Your task to perform on an android device: Open my contact list Image 0: 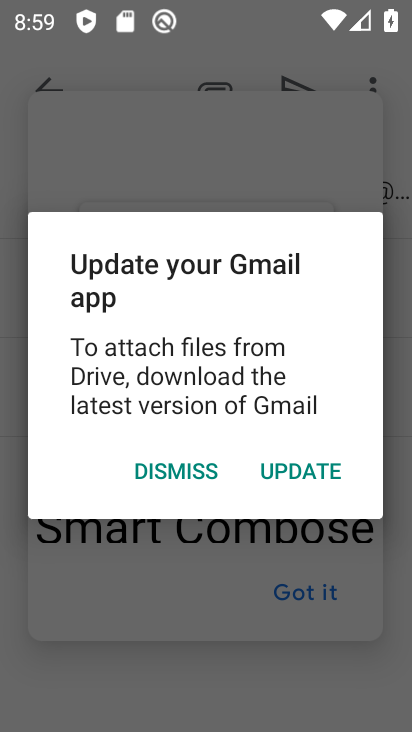
Step 0: press back button
Your task to perform on an android device: Open my contact list Image 1: 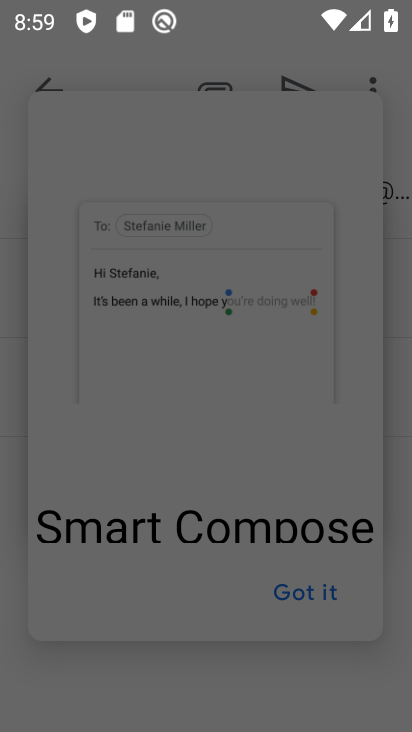
Step 1: press home button
Your task to perform on an android device: Open my contact list Image 2: 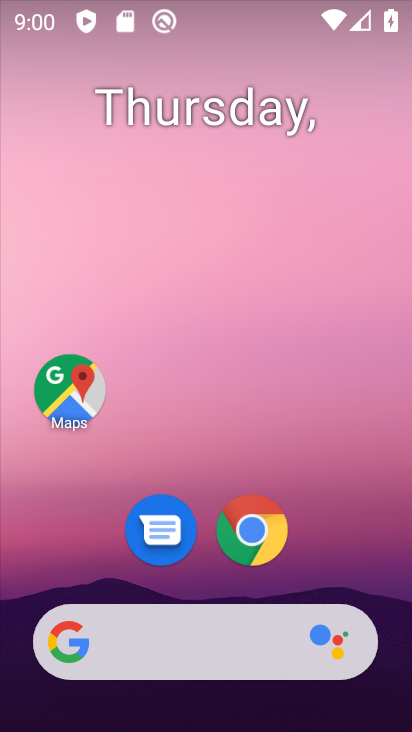
Step 2: drag from (328, 541) to (284, 28)
Your task to perform on an android device: Open my contact list Image 3: 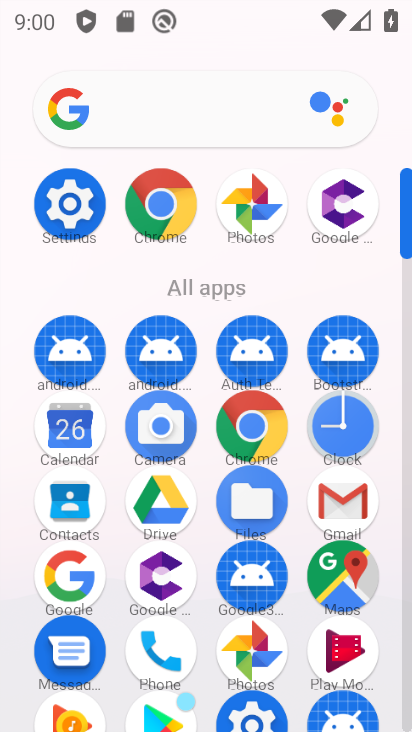
Step 3: click (147, 657)
Your task to perform on an android device: Open my contact list Image 4: 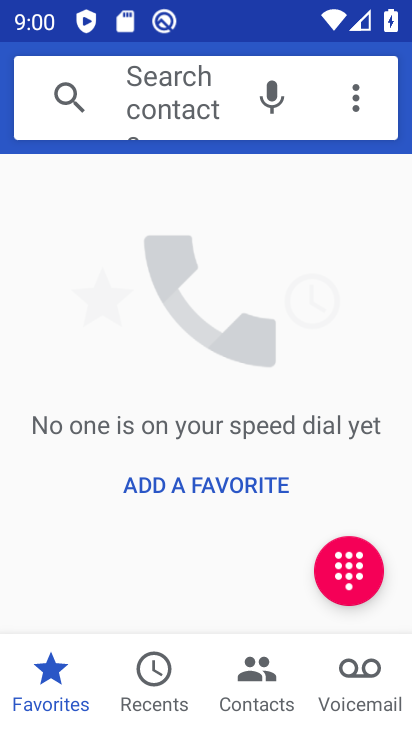
Step 4: click (260, 673)
Your task to perform on an android device: Open my contact list Image 5: 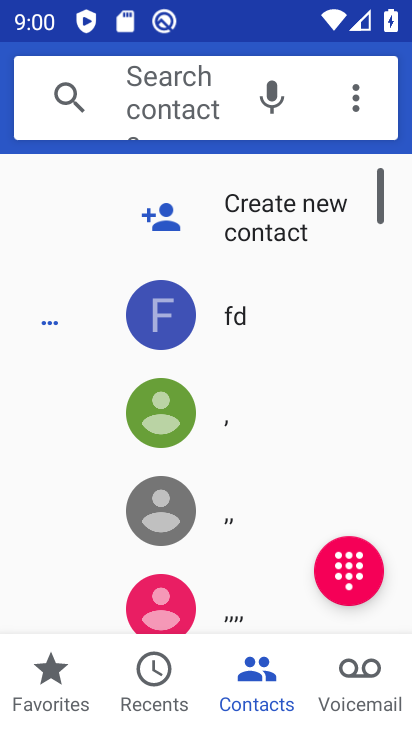
Step 5: task complete